Your task to perform on an android device: all mails in gmail Image 0: 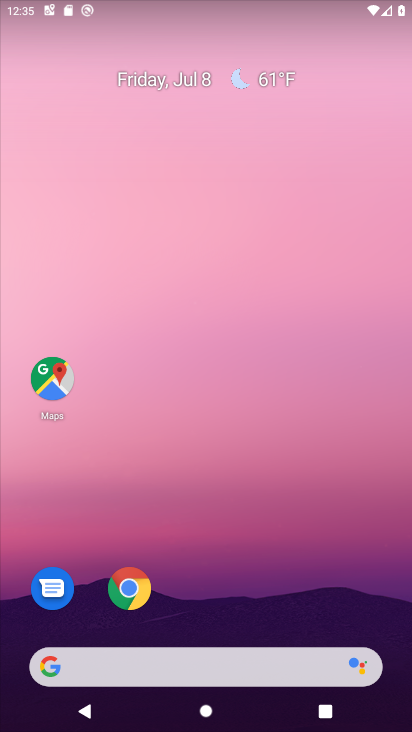
Step 0: press home button
Your task to perform on an android device: all mails in gmail Image 1: 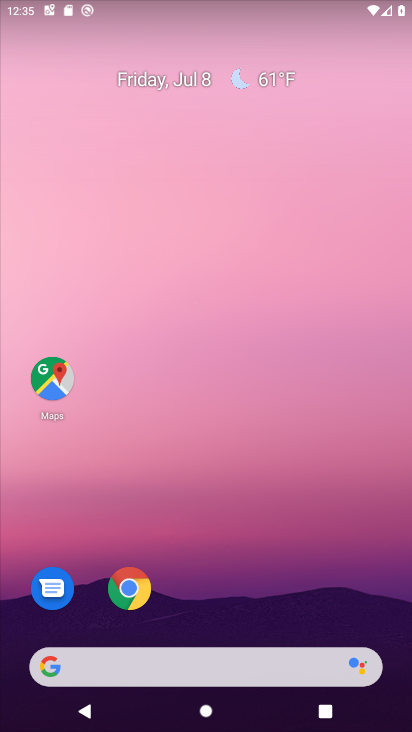
Step 1: drag from (294, 570) to (243, 26)
Your task to perform on an android device: all mails in gmail Image 2: 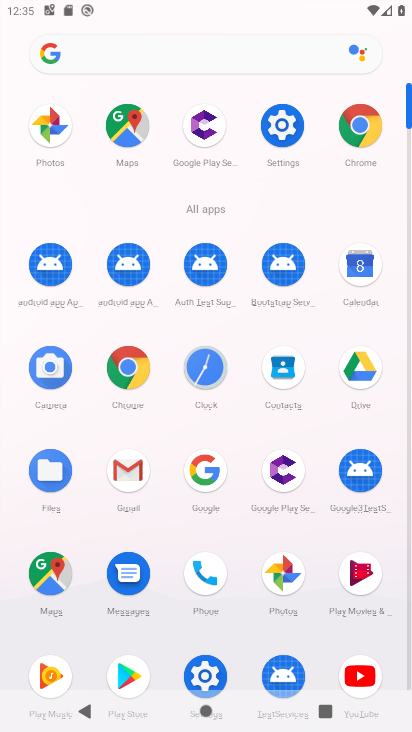
Step 2: click (128, 476)
Your task to perform on an android device: all mails in gmail Image 3: 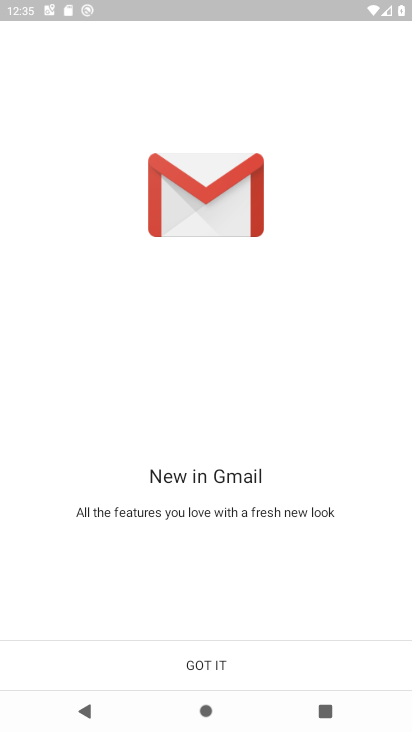
Step 3: click (193, 666)
Your task to perform on an android device: all mails in gmail Image 4: 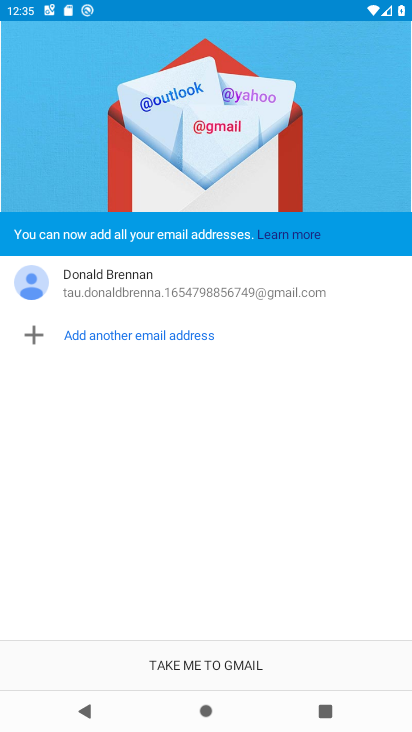
Step 4: click (210, 655)
Your task to perform on an android device: all mails in gmail Image 5: 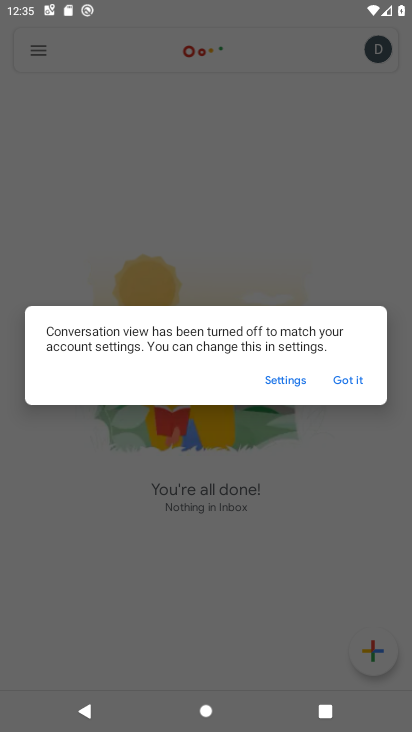
Step 5: click (361, 376)
Your task to perform on an android device: all mails in gmail Image 6: 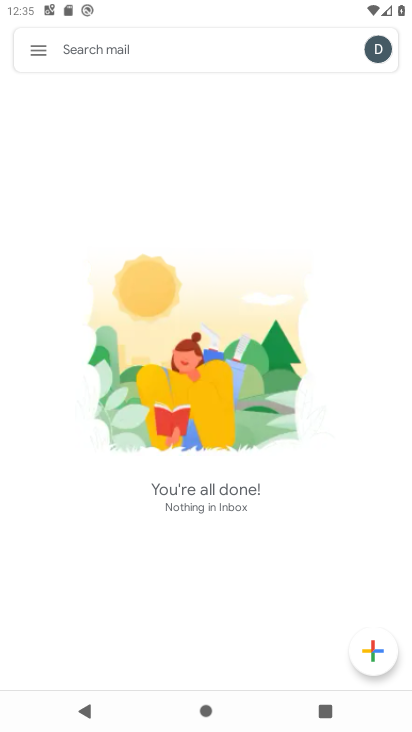
Step 6: click (39, 51)
Your task to perform on an android device: all mails in gmail Image 7: 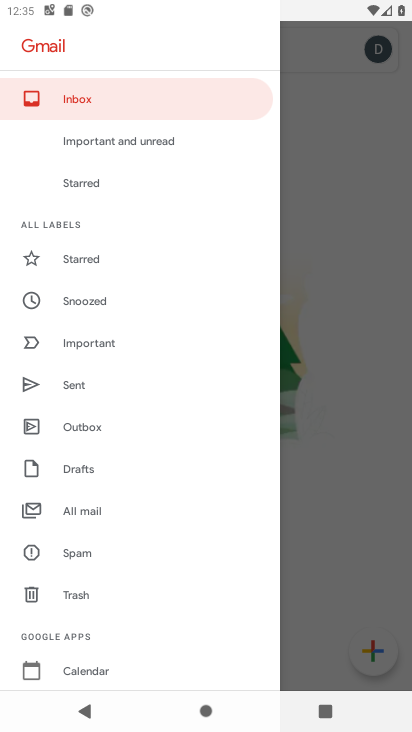
Step 7: click (75, 511)
Your task to perform on an android device: all mails in gmail Image 8: 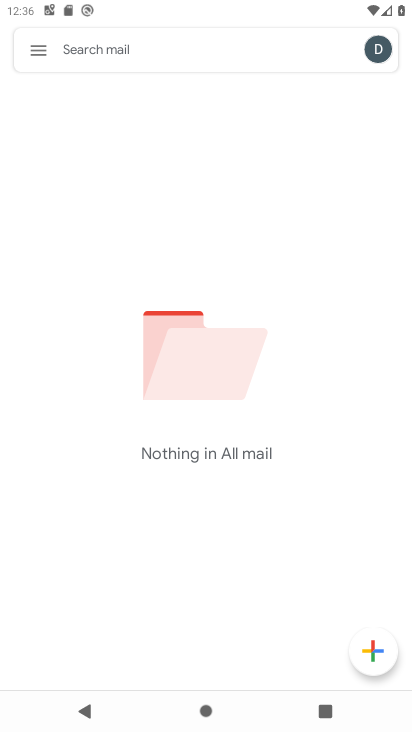
Step 8: task complete